Your task to perform on an android device: Open Wikipedia Image 0: 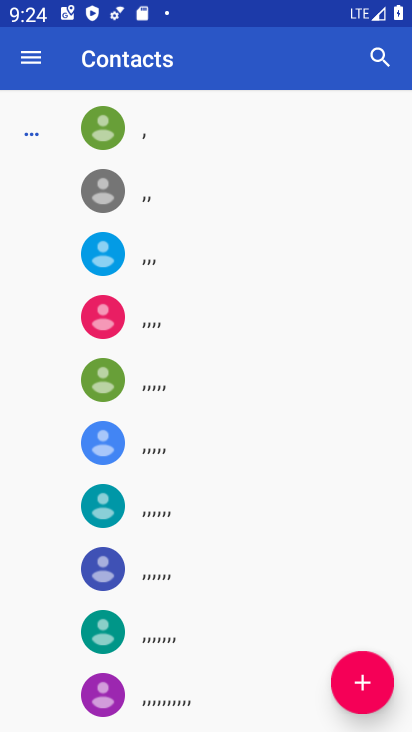
Step 0: press home button
Your task to perform on an android device: Open Wikipedia Image 1: 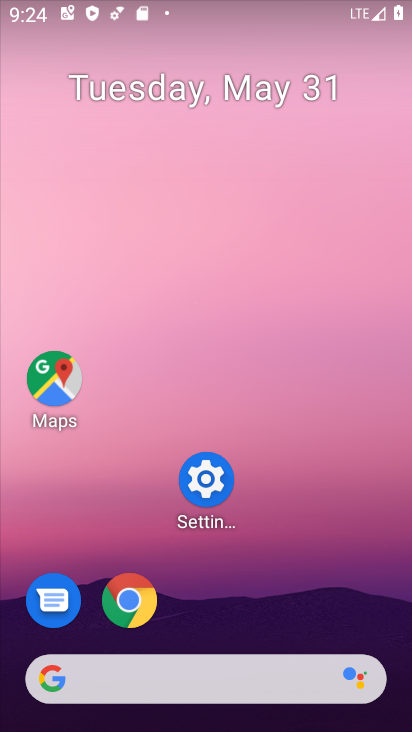
Step 1: click (132, 602)
Your task to perform on an android device: Open Wikipedia Image 2: 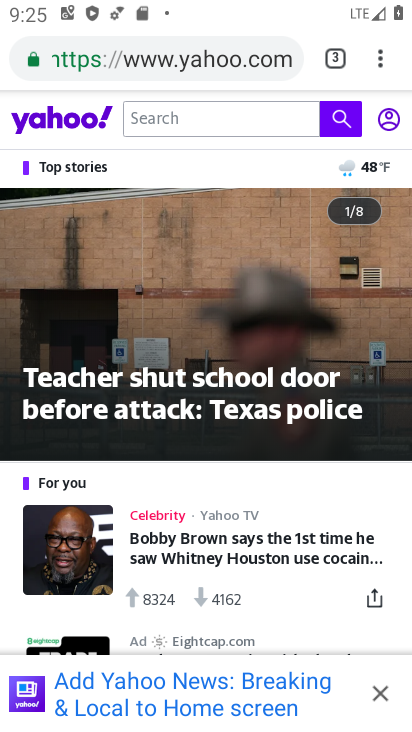
Step 2: click (382, 56)
Your task to perform on an android device: Open Wikipedia Image 3: 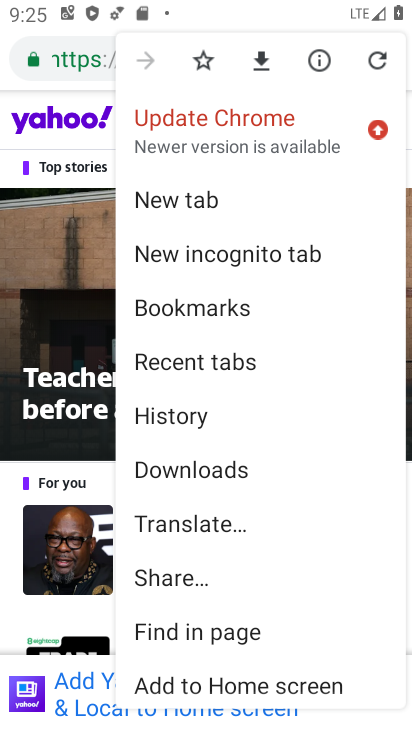
Step 3: click (184, 198)
Your task to perform on an android device: Open Wikipedia Image 4: 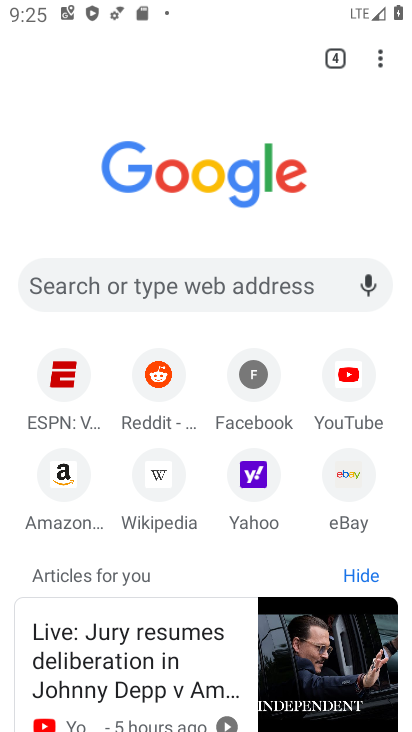
Step 4: click (154, 466)
Your task to perform on an android device: Open Wikipedia Image 5: 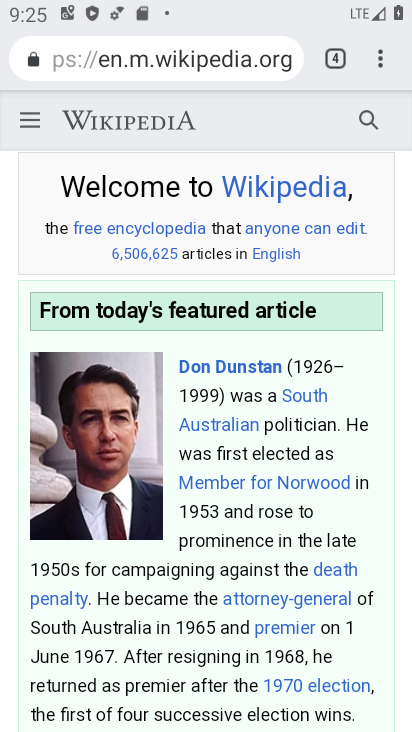
Step 5: task complete